Your task to perform on an android device: open app "DoorDash - Food Delivery" (install if not already installed) and enter user name: "Richard@outlook.com" and password: "informally" Image 0: 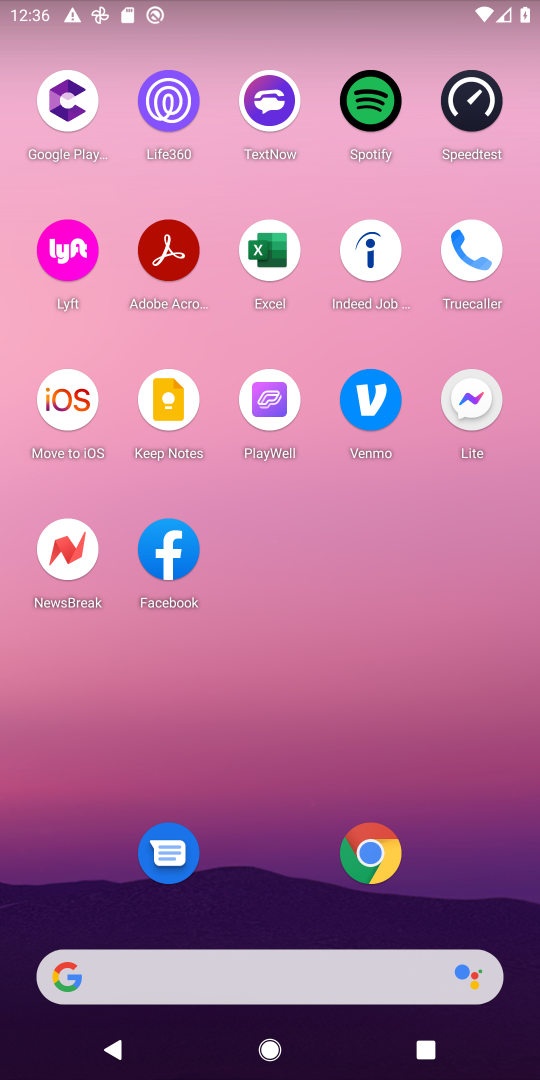
Step 0: drag from (250, 687) to (250, 219)
Your task to perform on an android device: open app "DoorDash - Food Delivery" (install if not already installed) and enter user name: "Richard@outlook.com" and password: "informally" Image 1: 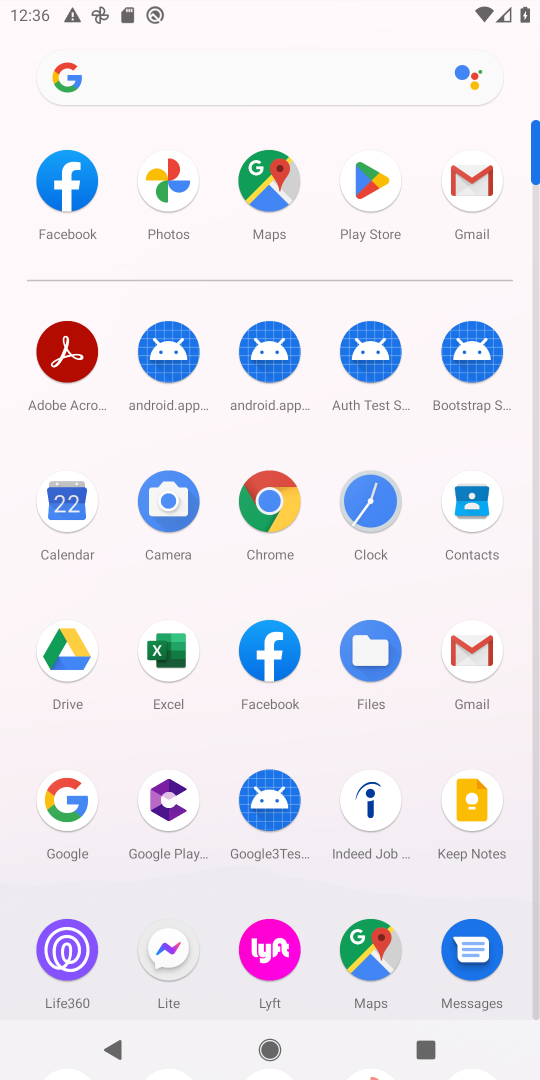
Step 1: click (372, 181)
Your task to perform on an android device: open app "DoorDash - Food Delivery" (install if not already installed) and enter user name: "Richard@outlook.com" and password: "informally" Image 2: 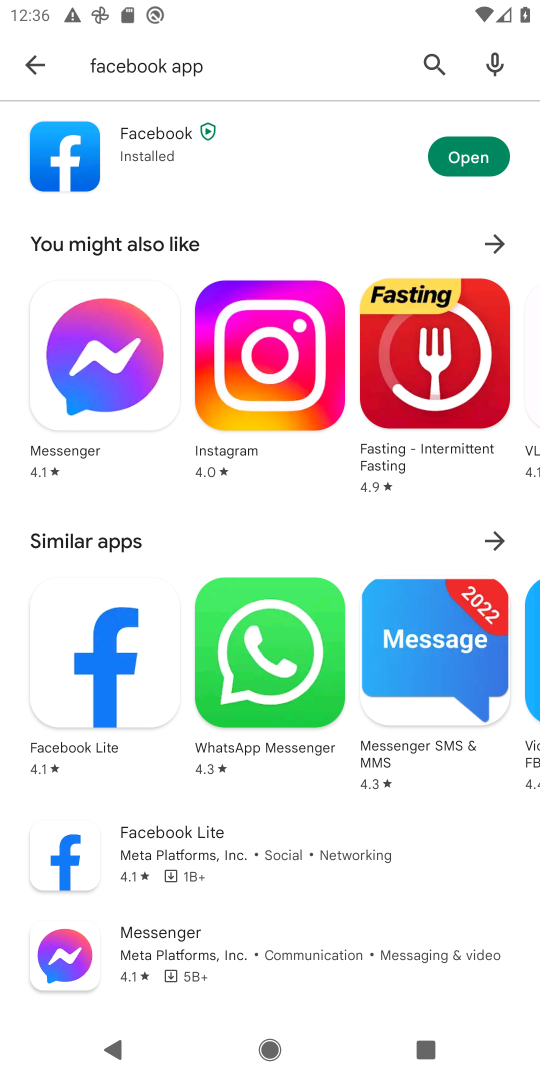
Step 2: click (24, 62)
Your task to perform on an android device: open app "DoorDash - Food Delivery" (install if not already installed) and enter user name: "Richard@outlook.com" and password: "informally" Image 3: 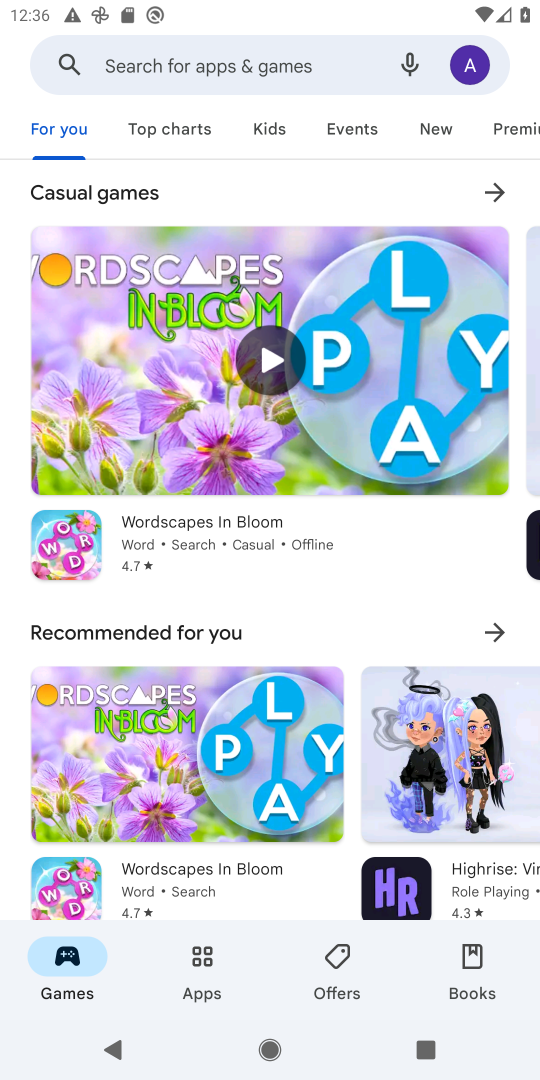
Step 3: click (246, 57)
Your task to perform on an android device: open app "DoorDash - Food Delivery" (install if not already installed) and enter user name: "Richard@outlook.com" and password: "informally" Image 4: 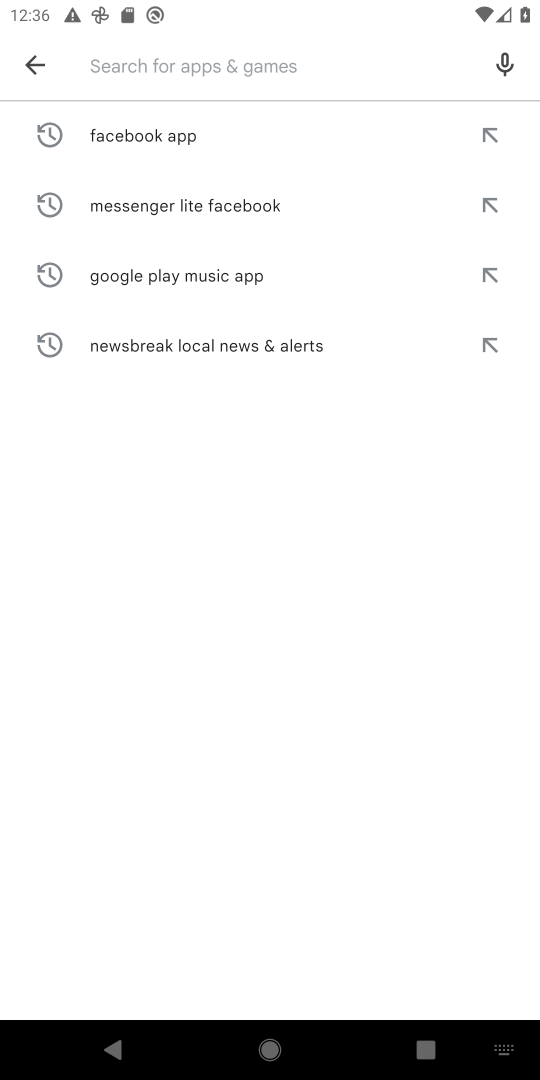
Step 4: type "DoorDash - Food Delivery "
Your task to perform on an android device: open app "DoorDash - Food Delivery" (install if not already installed) and enter user name: "Richard@outlook.com" and password: "informally" Image 5: 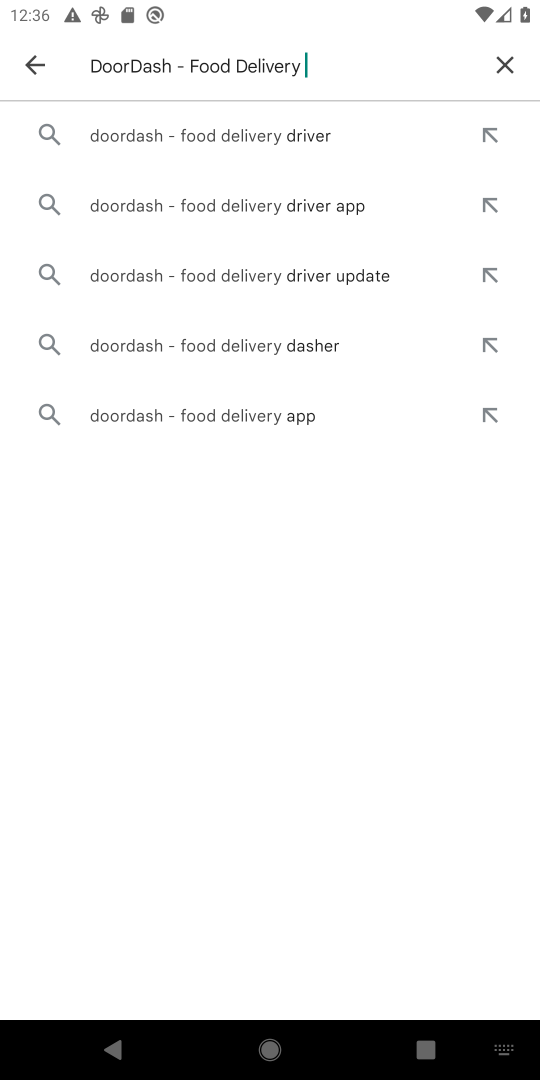
Step 5: click (200, 126)
Your task to perform on an android device: open app "DoorDash - Food Delivery" (install if not already installed) and enter user name: "Richard@outlook.com" and password: "informally" Image 6: 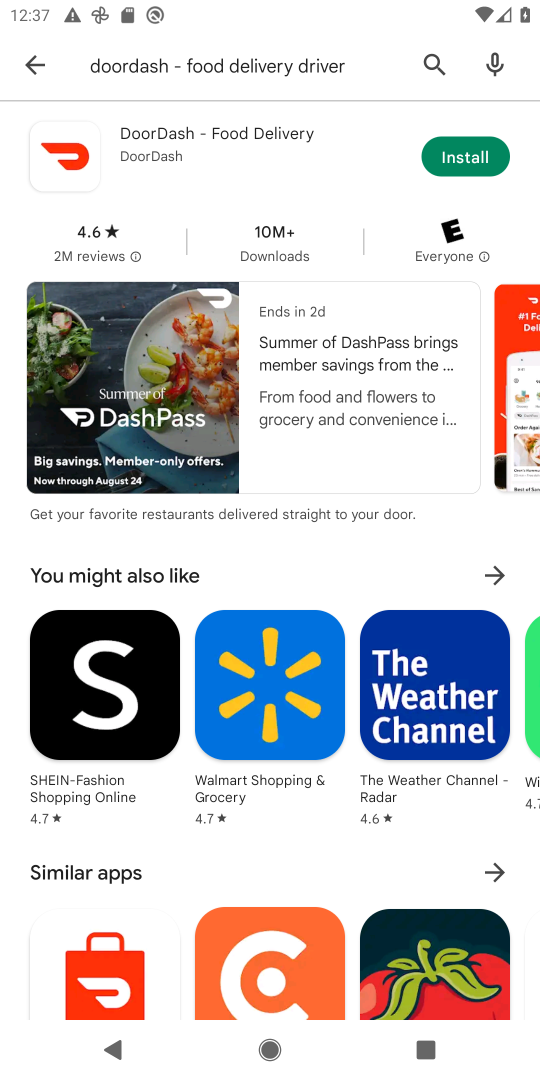
Step 6: click (441, 142)
Your task to perform on an android device: open app "DoorDash - Food Delivery" (install if not already installed) and enter user name: "Richard@outlook.com" and password: "informally" Image 7: 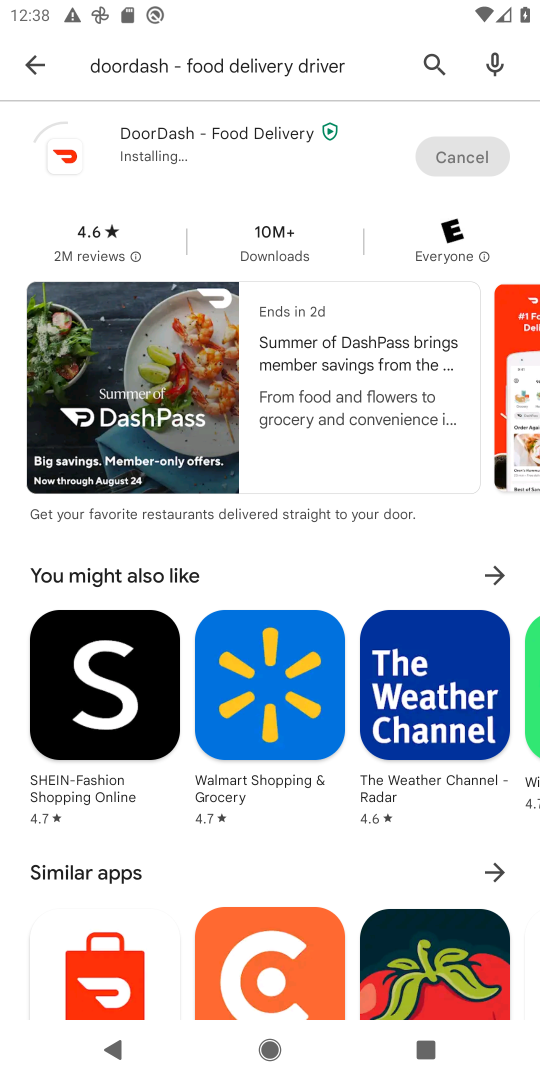
Step 7: task complete